Your task to perform on an android device: Play the last video I watched on Youtube Image 0: 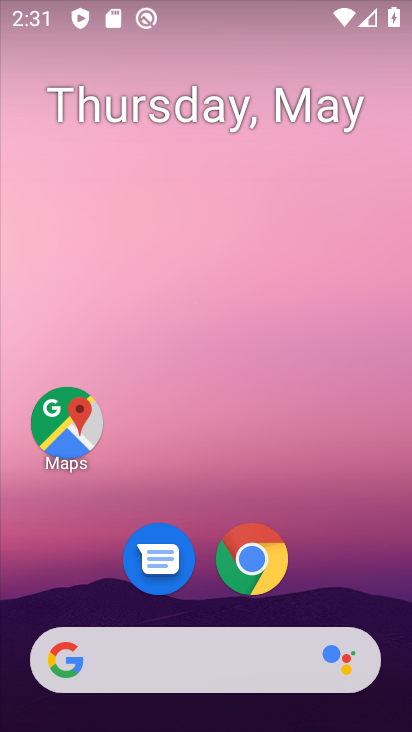
Step 0: drag from (194, 605) to (200, 118)
Your task to perform on an android device: Play the last video I watched on Youtube Image 1: 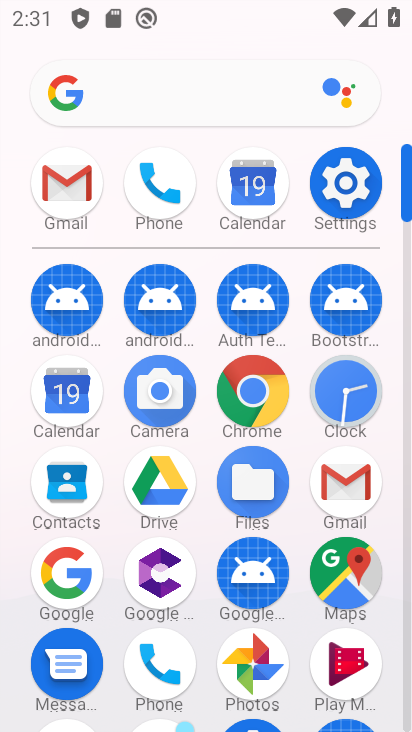
Step 1: drag from (261, 615) to (291, 220)
Your task to perform on an android device: Play the last video I watched on Youtube Image 2: 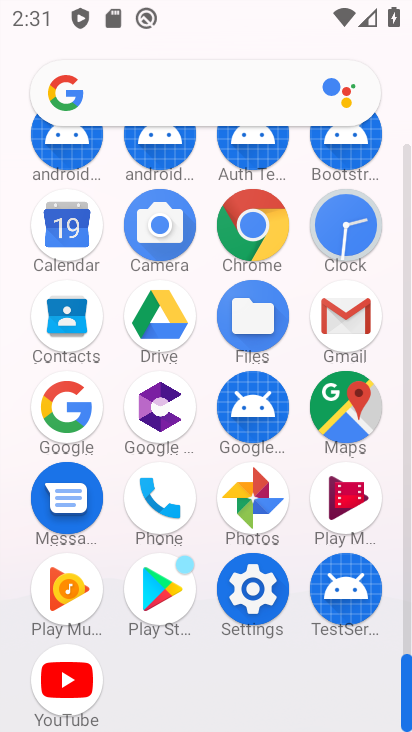
Step 2: drag from (280, 536) to (280, 299)
Your task to perform on an android device: Play the last video I watched on Youtube Image 3: 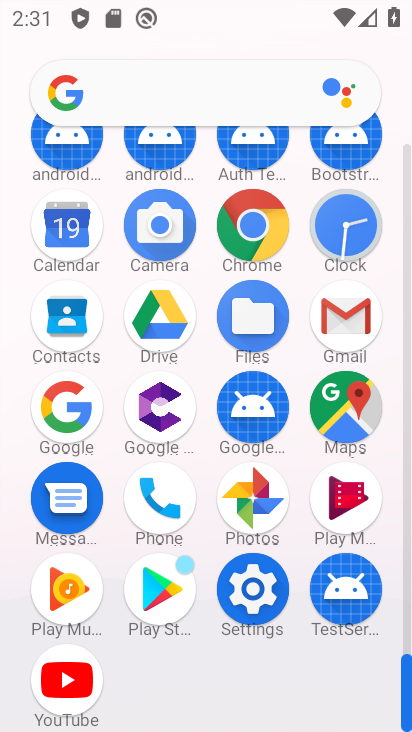
Step 3: click (63, 643)
Your task to perform on an android device: Play the last video I watched on Youtube Image 4: 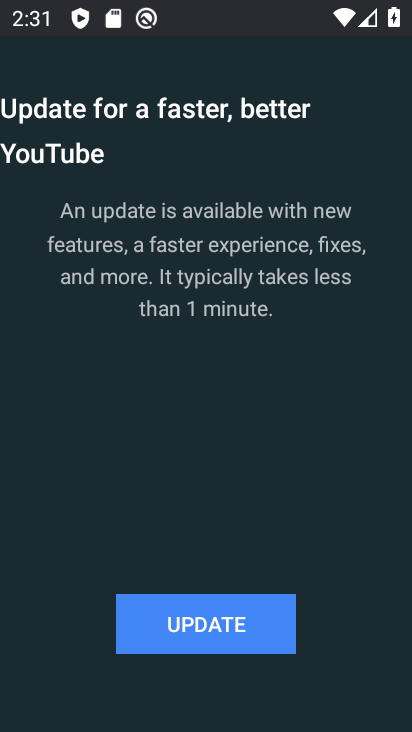
Step 4: click (238, 620)
Your task to perform on an android device: Play the last video I watched on Youtube Image 5: 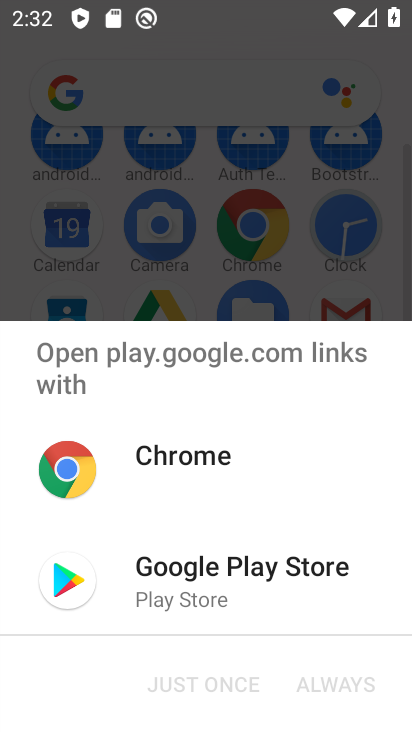
Step 5: click (186, 561)
Your task to perform on an android device: Play the last video I watched on Youtube Image 6: 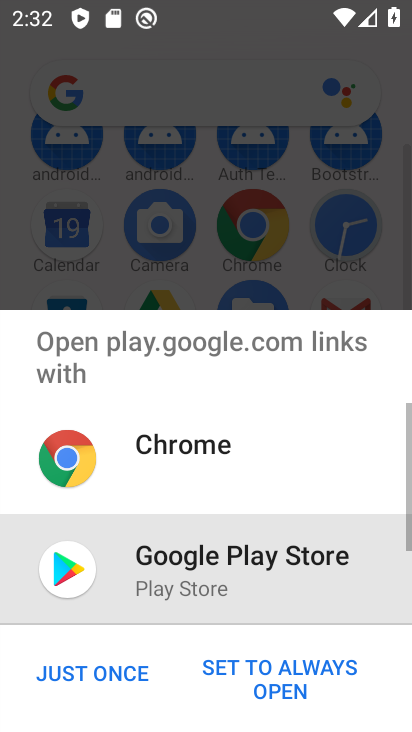
Step 6: drag from (197, 679) to (122, 661)
Your task to perform on an android device: Play the last video I watched on Youtube Image 7: 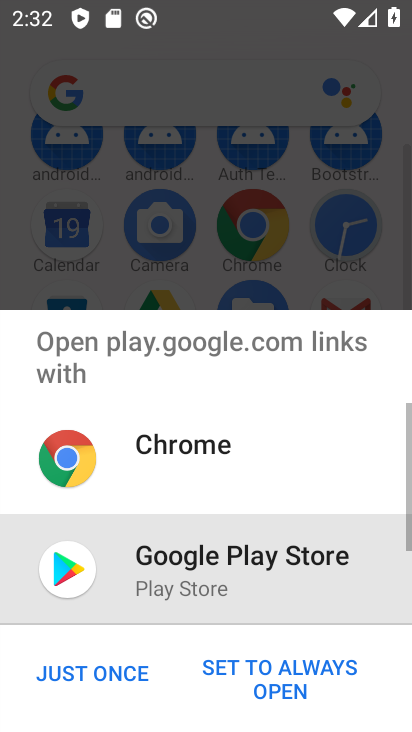
Step 7: click (114, 660)
Your task to perform on an android device: Play the last video I watched on Youtube Image 8: 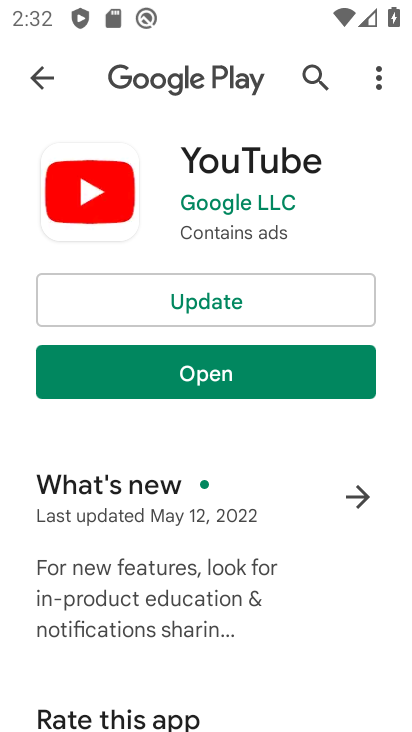
Step 8: click (244, 290)
Your task to perform on an android device: Play the last video I watched on Youtube Image 9: 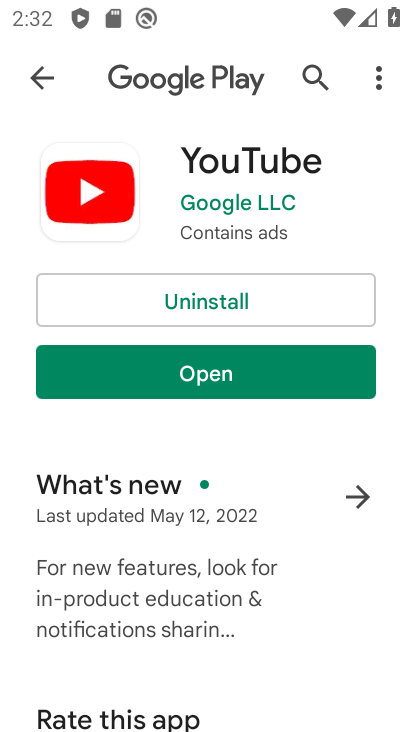
Step 9: click (235, 360)
Your task to perform on an android device: Play the last video I watched on Youtube Image 10: 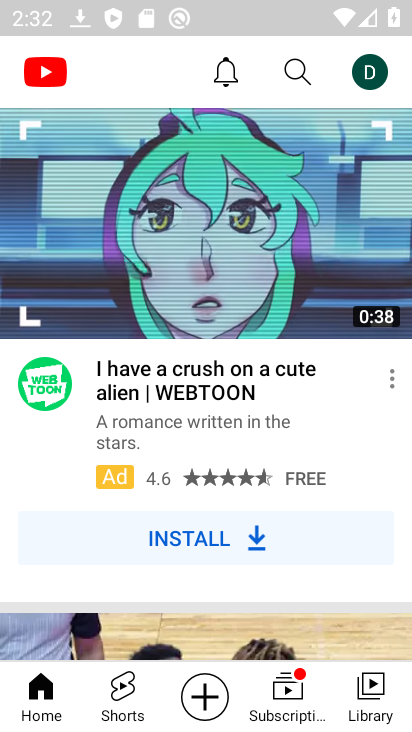
Step 10: click (375, 697)
Your task to perform on an android device: Play the last video I watched on Youtube Image 11: 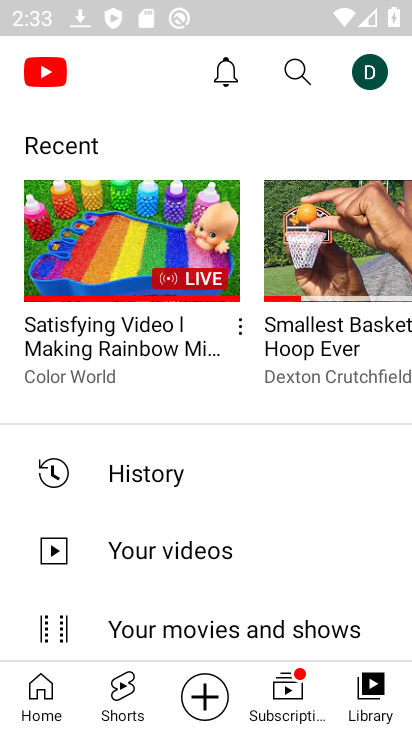
Step 11: click (140, 467)
Your task to perform on an android device: Play the last video I watched on Youtube Image 12: 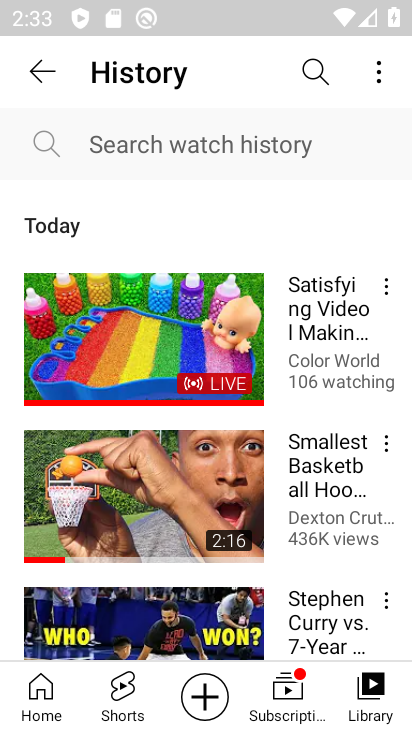
Step 12: click (312, 302)
Your task to perform on an android device: Play the last video I watched on Youtube Image 13: 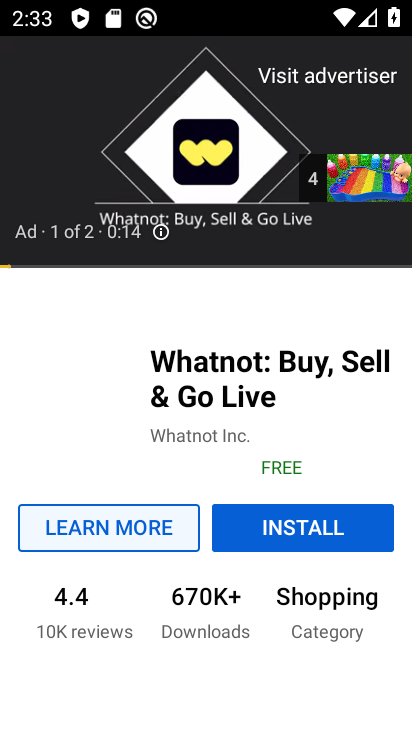
Step 13: task complete